Your task to perform on an android device: star an email in the gmail app Image 0: 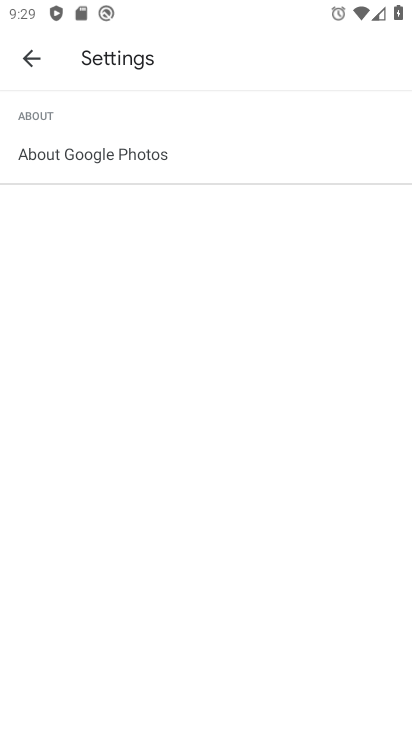
Step 0: press home button
Your task to perform on an android device: star an email in the gmail app Image 1: 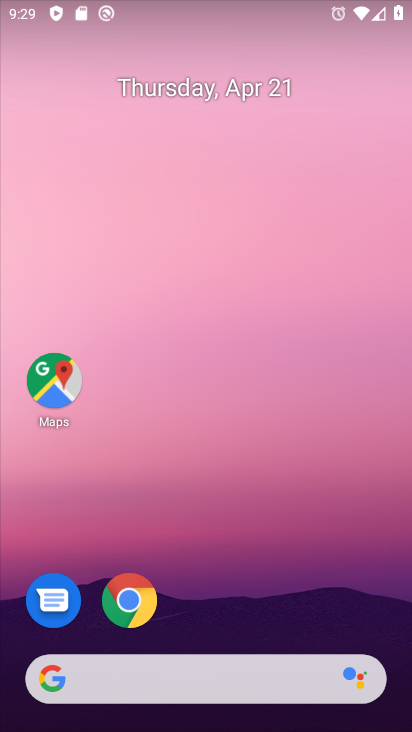
Step 1: drag from (238, 582) to (221, 157)
Your task to perform on an android device: star an email in the gmail app Image 2: 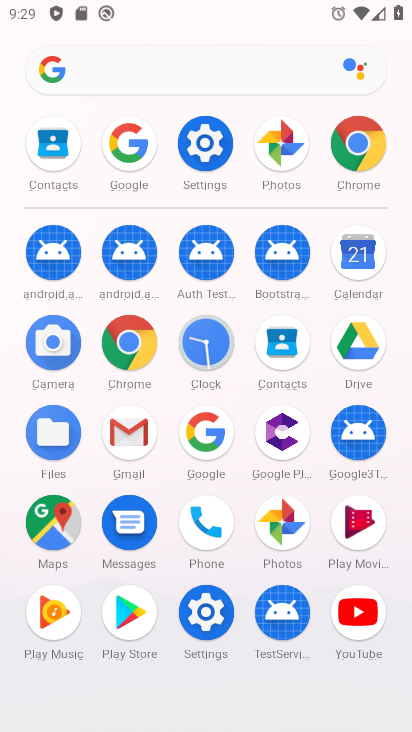
Step 2: click (127, 439)
Your task to perform on an android device: star an email in the gmail app Image 3: 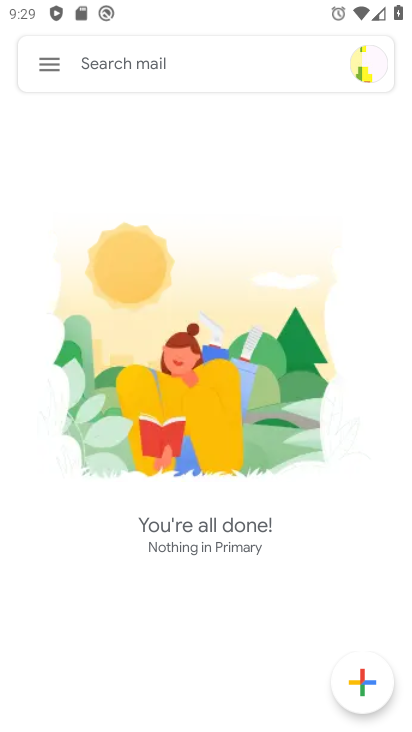
Step 3: click (41, 66)
Your task to perform on an android device: star an email in the gmail app Image 4: 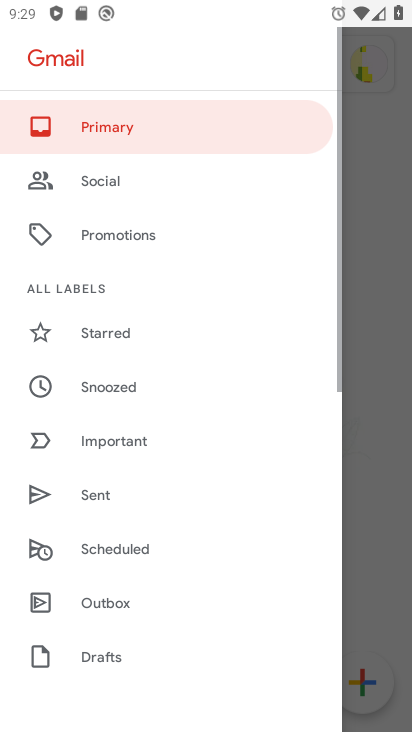
Step 4: drag from (173, 508) to (212, 111)
Your task to perform on an android device: star an email in the gmail app Image 5: 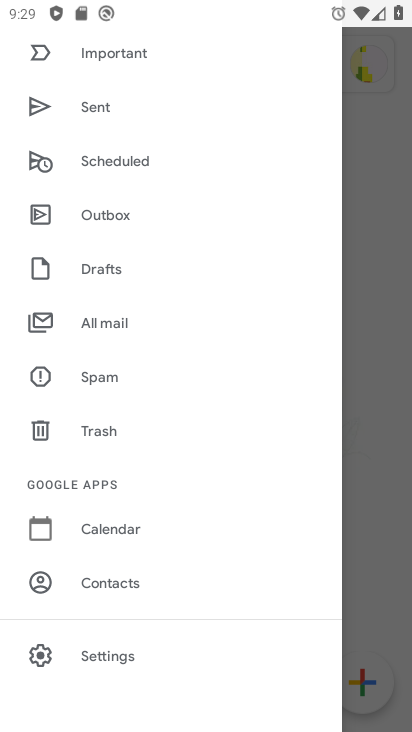
Step 5: click (117, 321)
Your task to perform on an android device: star an email in the gmail app Image 6: 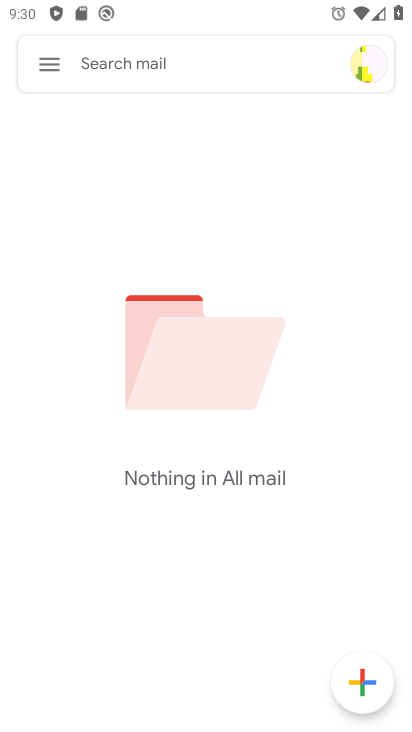
Step 6: task complete